Your task to perform on an android device: choose inbox layout in the gmail app Image 0: 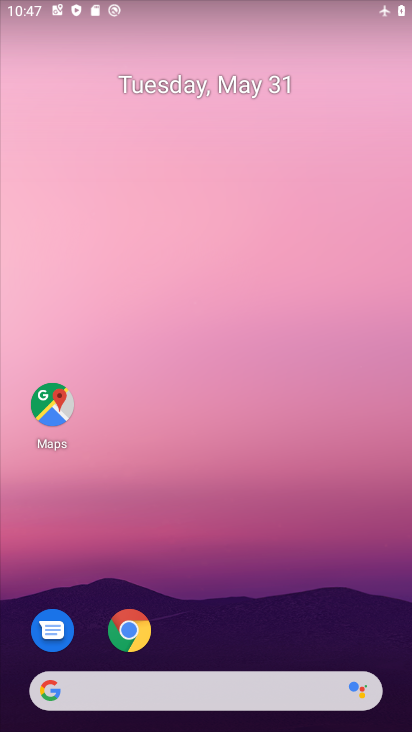
Step 0: drag from (271, 598) to (269, 152)
Your task to perform on an android device: choose inbox layout in the gmail app Image 1: 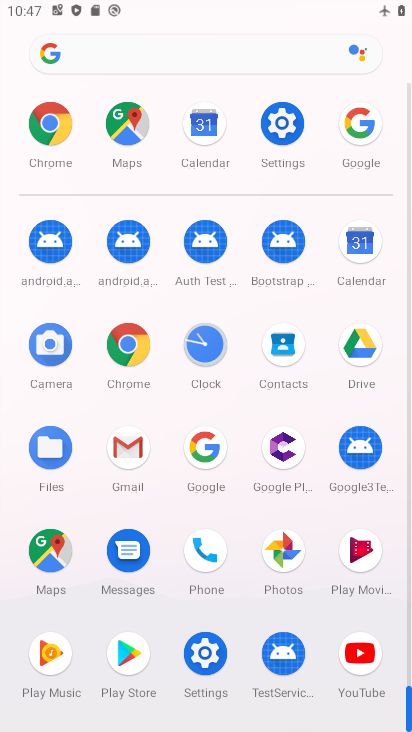
Step 1: click (128, 469)
Your task to perform on an android device: choose inbox layout in the gmail app Image 2: 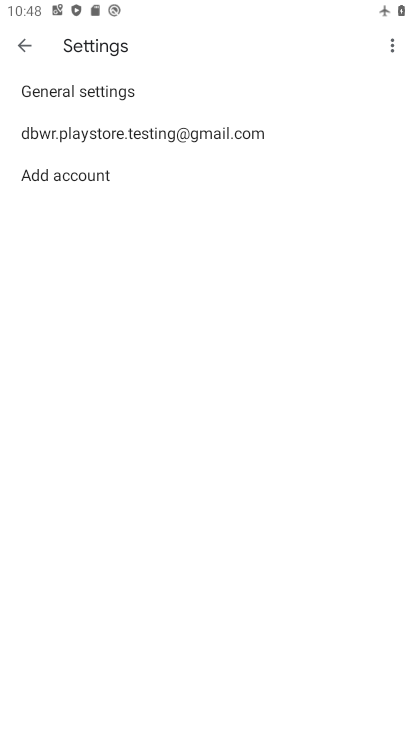
Step 2: task complete